Your task to perform on an android device: Go to Yahoo.com Image 0: 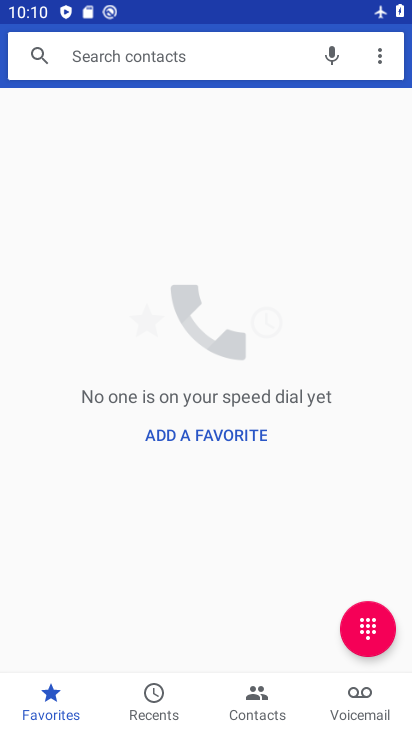
Step 0: press home button
Your task to perform on an android device: Go to Yahoo.com Image 1: 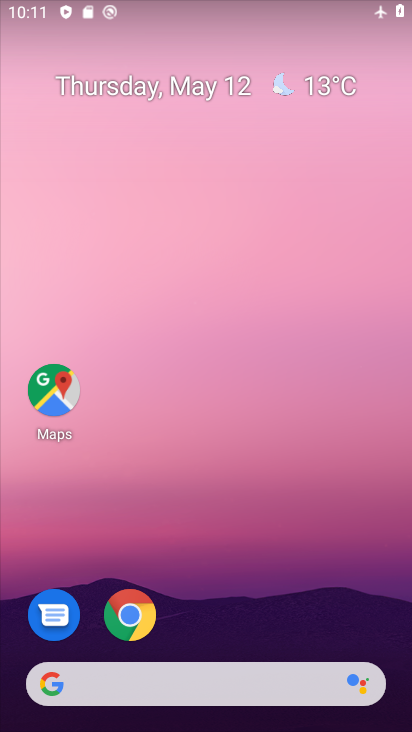
Step 1: drag from (343, 613) to (267, 25)
Your task to perform on an android device: Go to Yahoo.com Image 2: 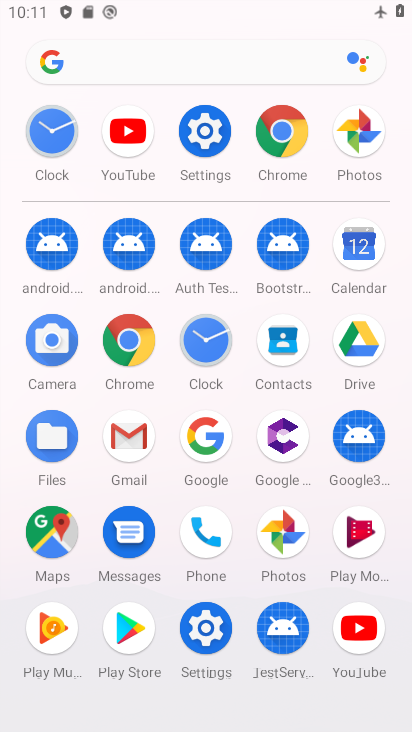
Step 2: click (295, 132)
Your task to perform on an android device: Go to Yahoo.com Image 3: 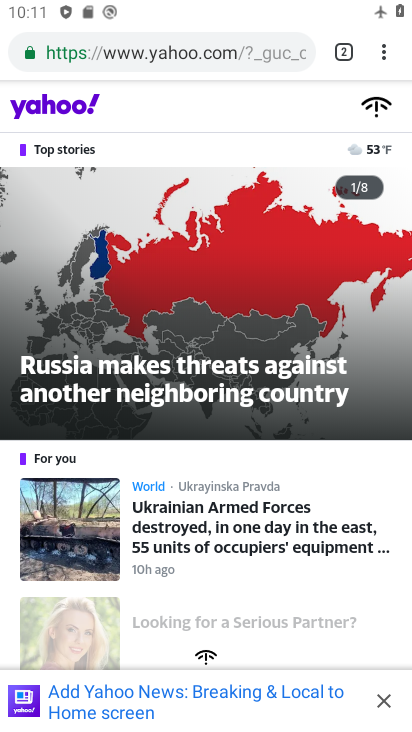
Step 3: task complete